Your task to perform on an android device: Go to display settings Image 0: 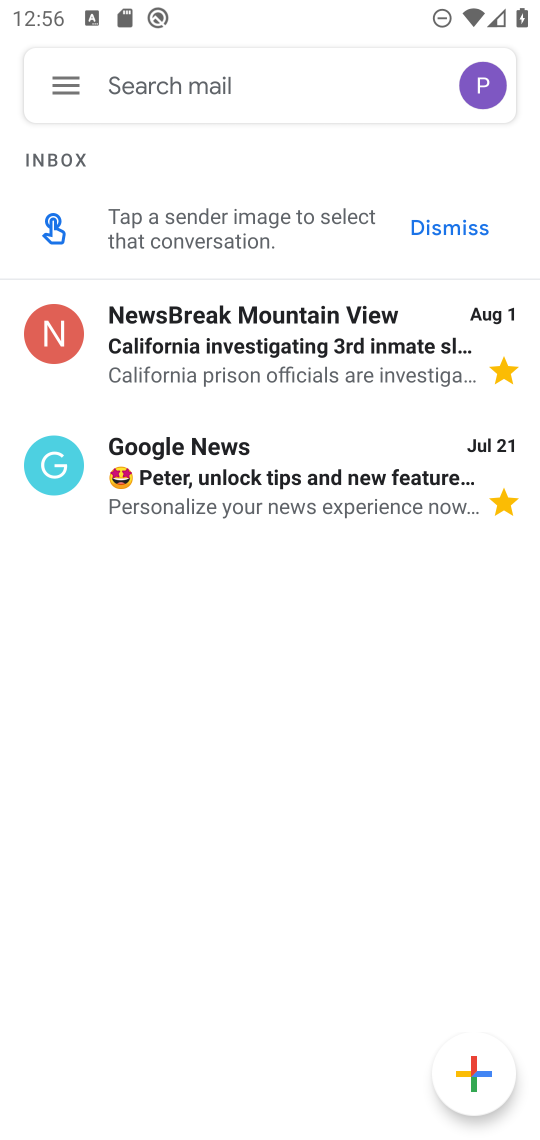
Step 0: press home button
Your task to perform on an android device: Go to display settings Image 1: 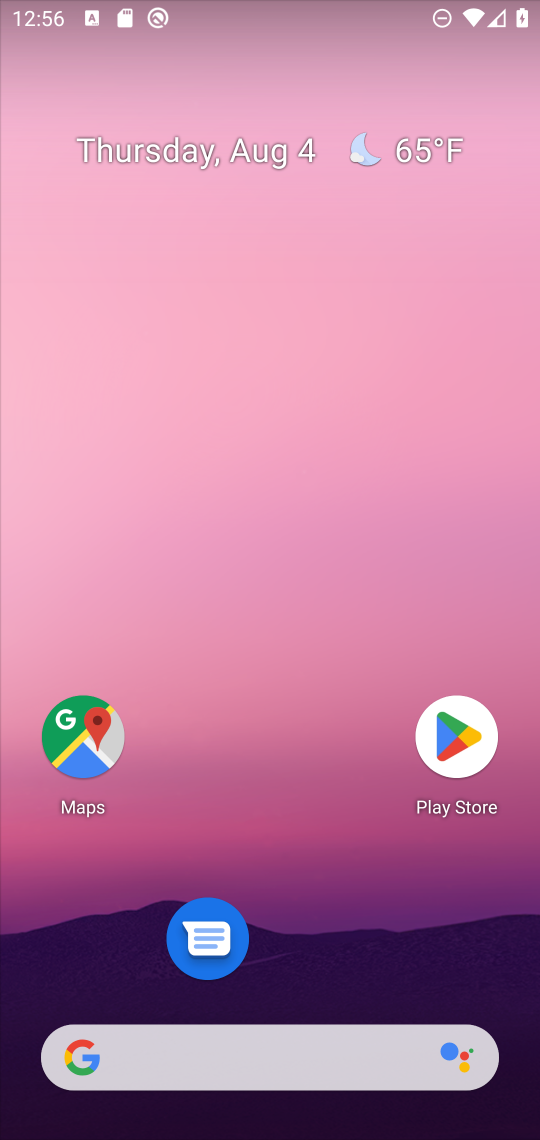
Step 1: drag from (140, 1138) to (257, 30)
Your task to perform on an android device: Go to display settings Image 2: 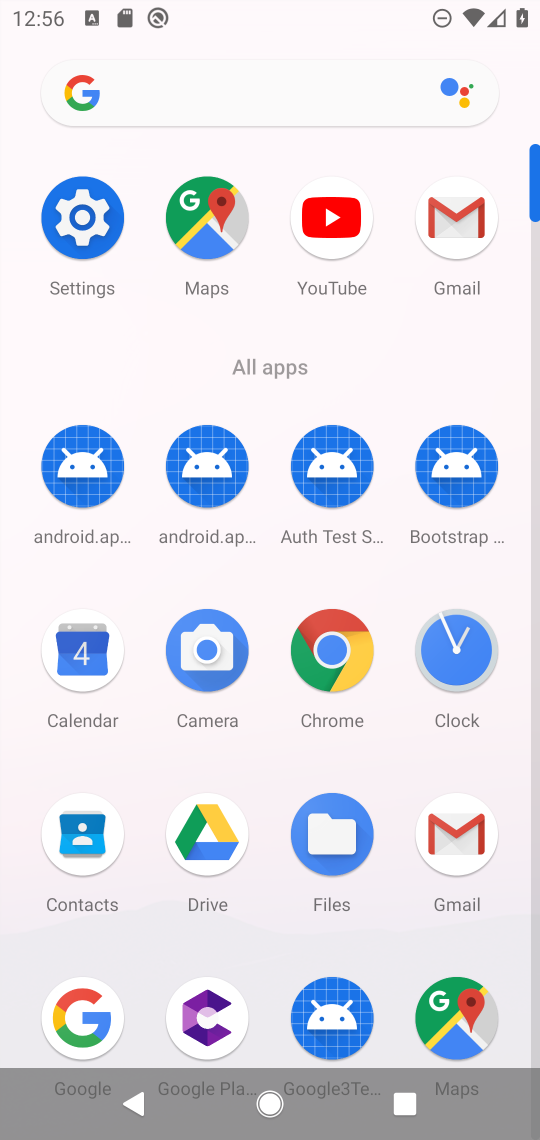
Step 2: click (82, 202)
Your task to perform on an android device: Go to display settings Image 3: 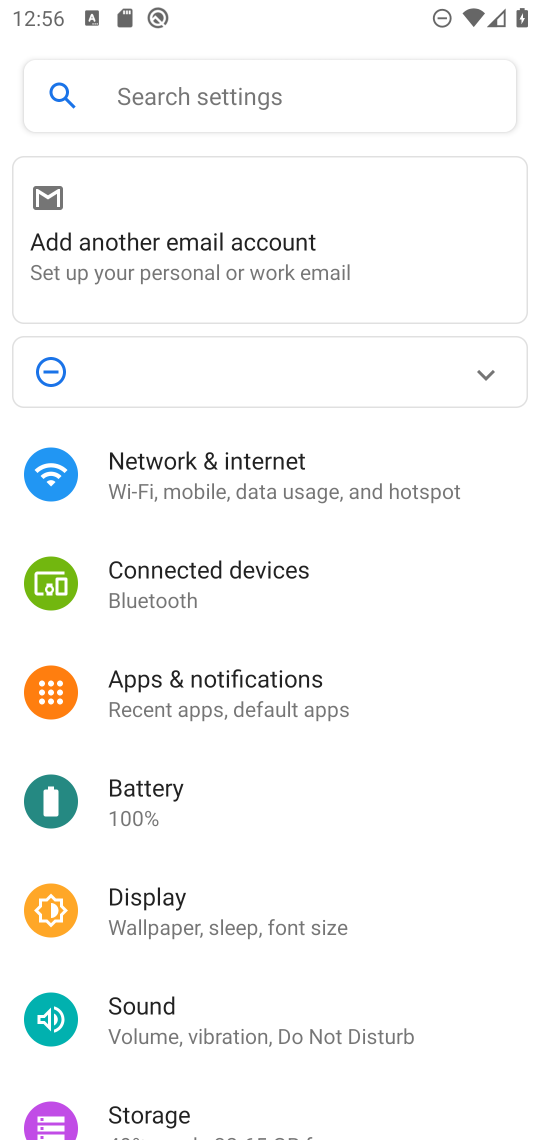
Step 3: click (223, 915)
Your task to perform on an android device: Go to display settings Image 4: 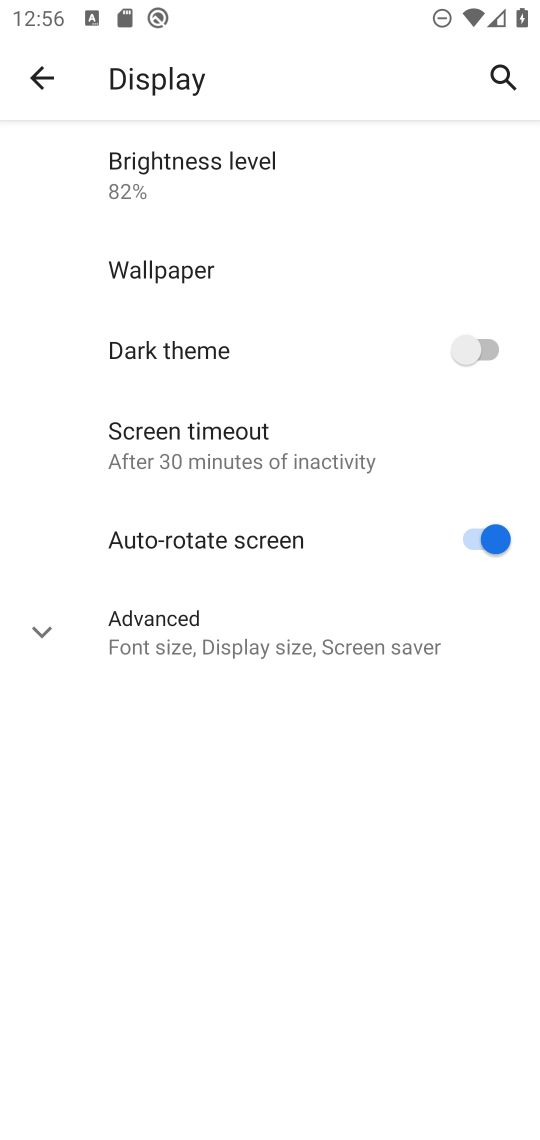
Step 4: task complete